Your task to perform on an android device: Go to notification settings Image 0: 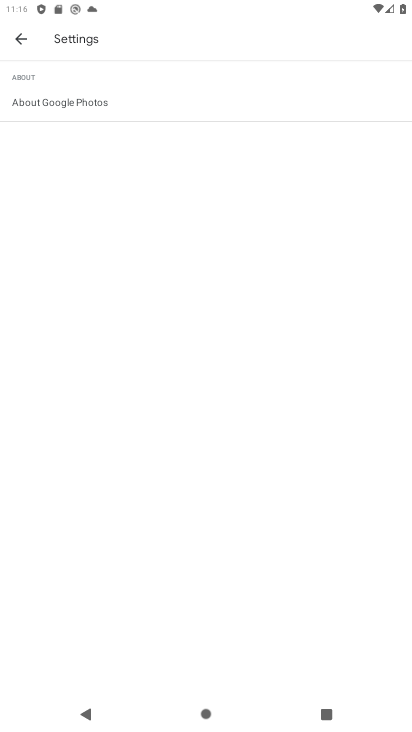
Step 0: press home button
Your task to perform on an android device: Go to notification settings Image 1: 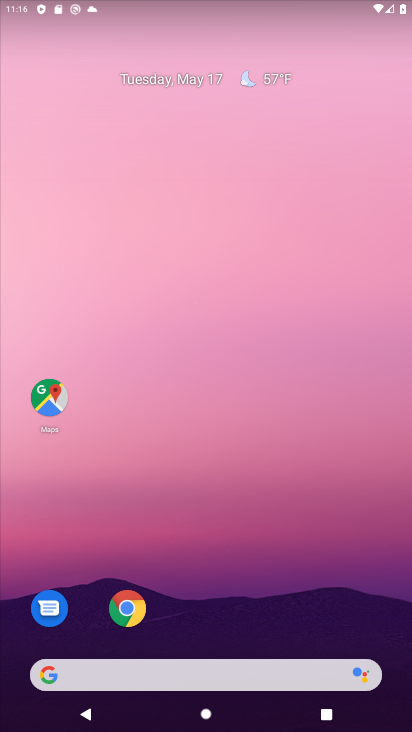
Step 1: drag from (259, 555) to (236, 105)
Your task to perform on an android device: Go to notification settings Image 2: 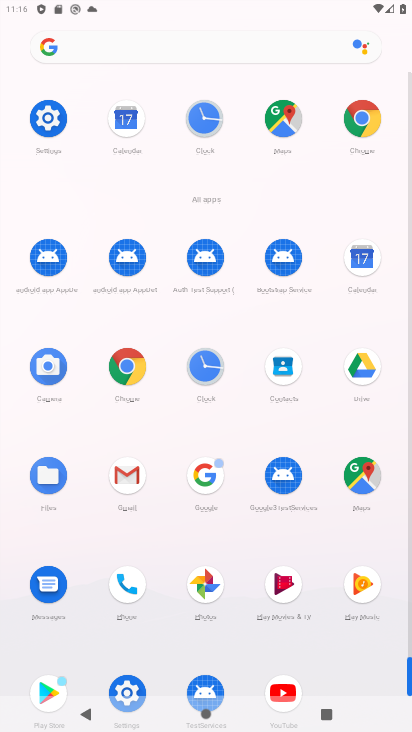
Step 2: click (38, 125)
Your task to perform on an android device: Go to notification settings Image 3: 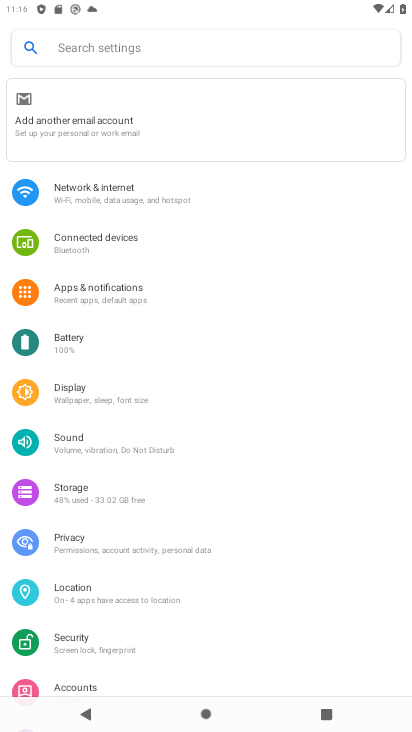
Step 3: click (105, 281)
Your task to perform on an android device: Go to notification settings Image 4: 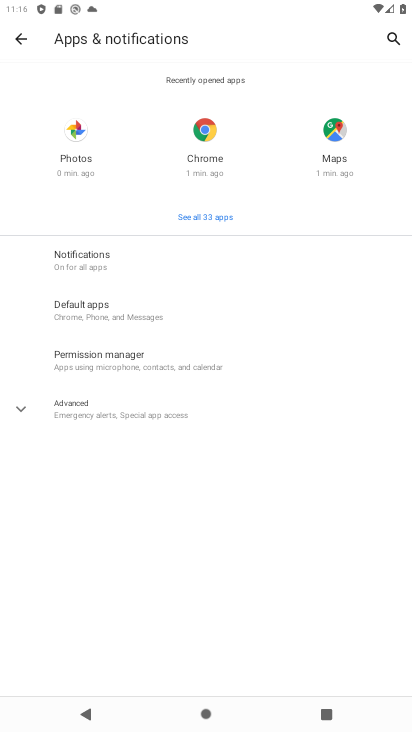
Step 4: task complete